Your task to perform on an android device: check data usage Image 0: 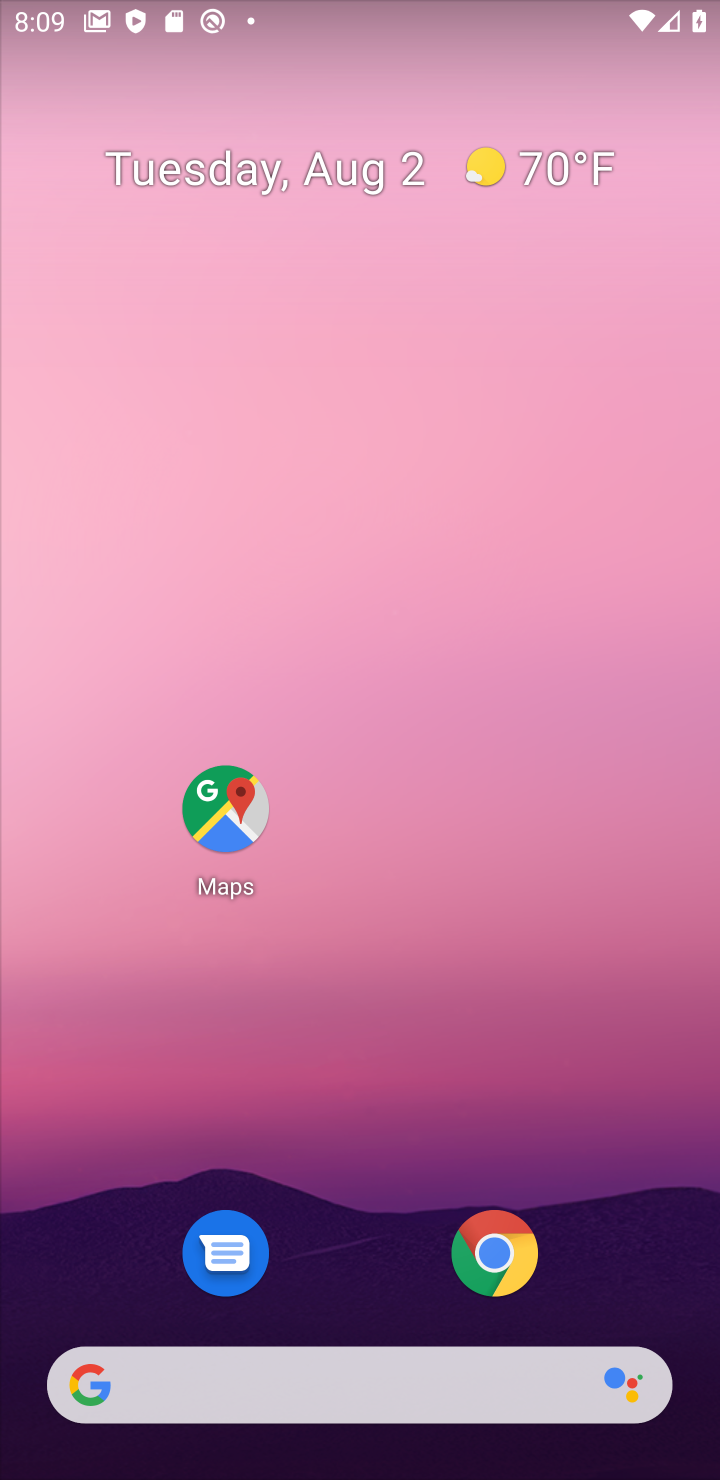
Step 0: drag from (414, 1380) to (448, 91)
Your task to perform on an android device: check data usage Image 1: 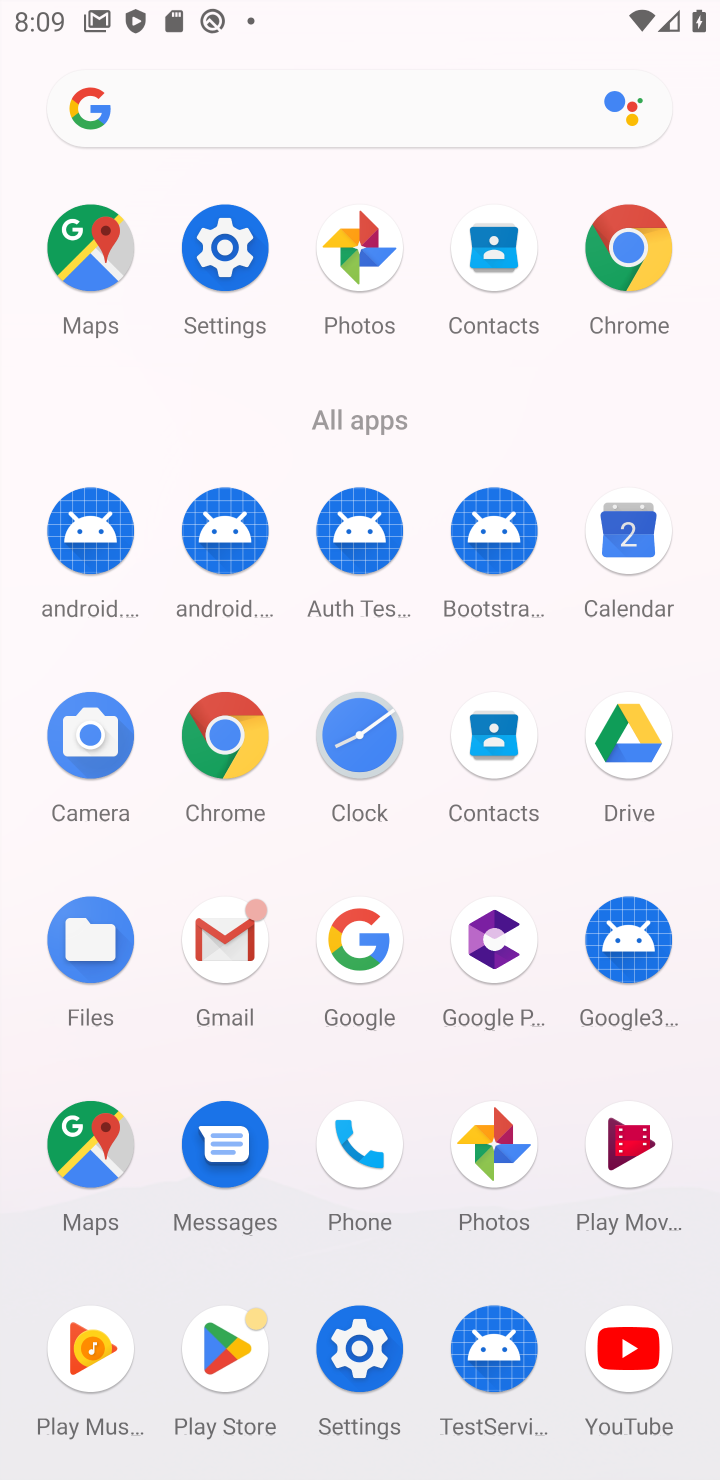
Step 1: click (233, 251)
Your task to perform on an android device: check data usage Image 2: 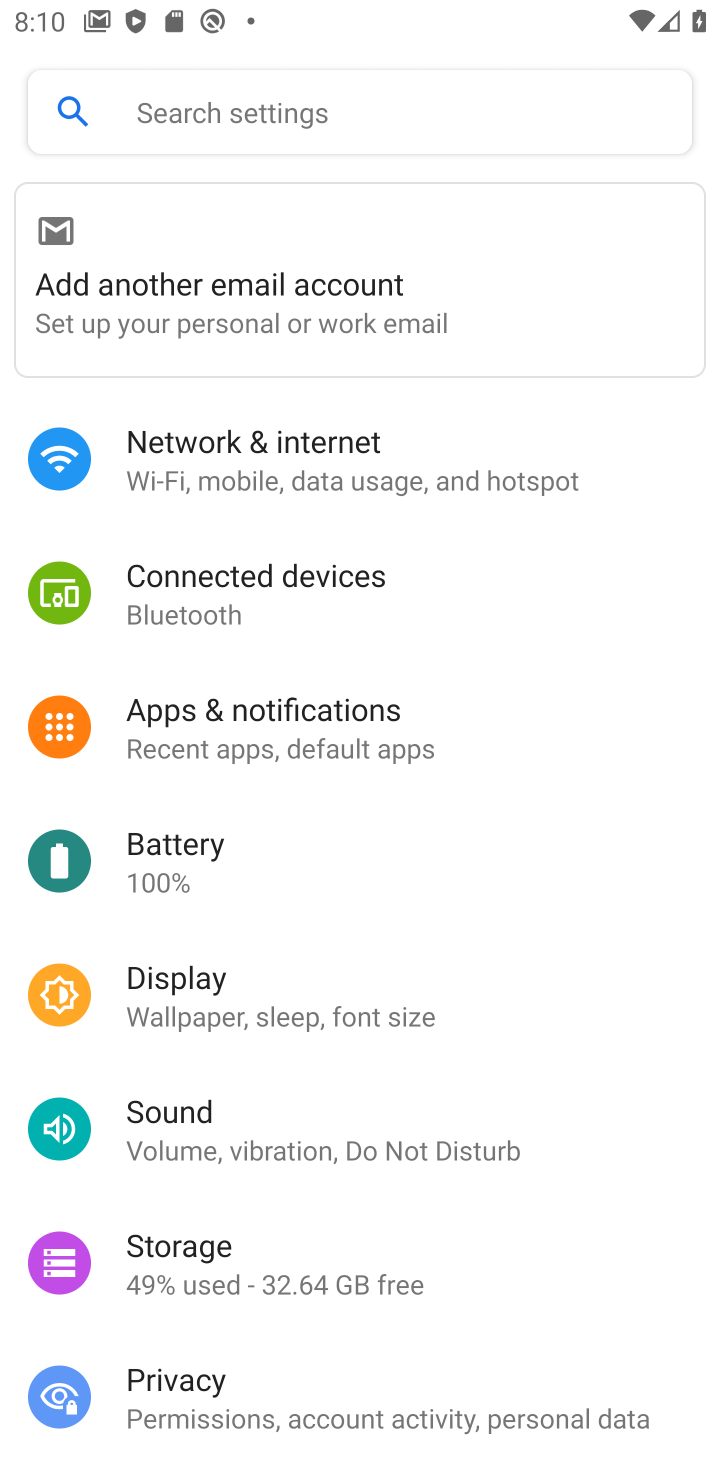
Step 2: click (303, 453)
Your task to perform on an android device: check data usage Image 3: 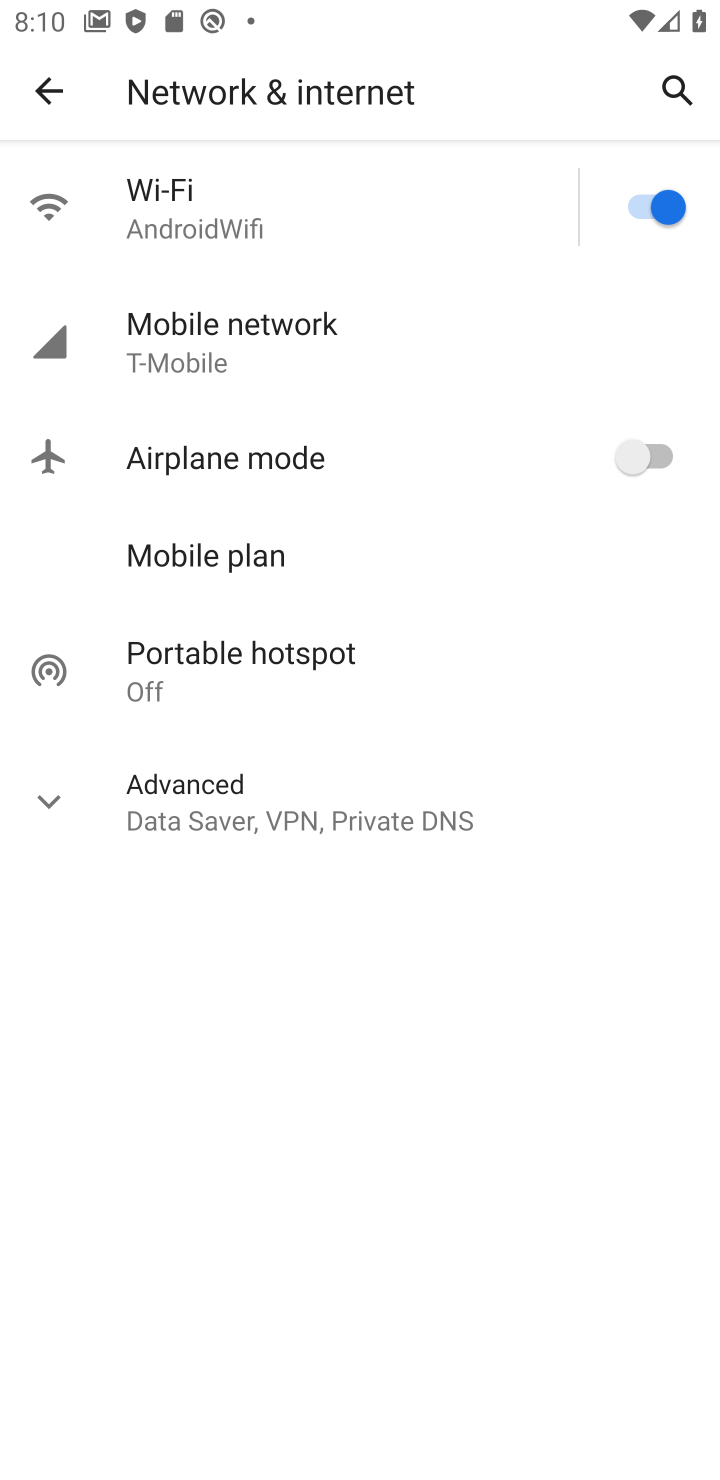
Step 3: click (218, 216)
Your task to perform on an android device: check data usage Image 4: 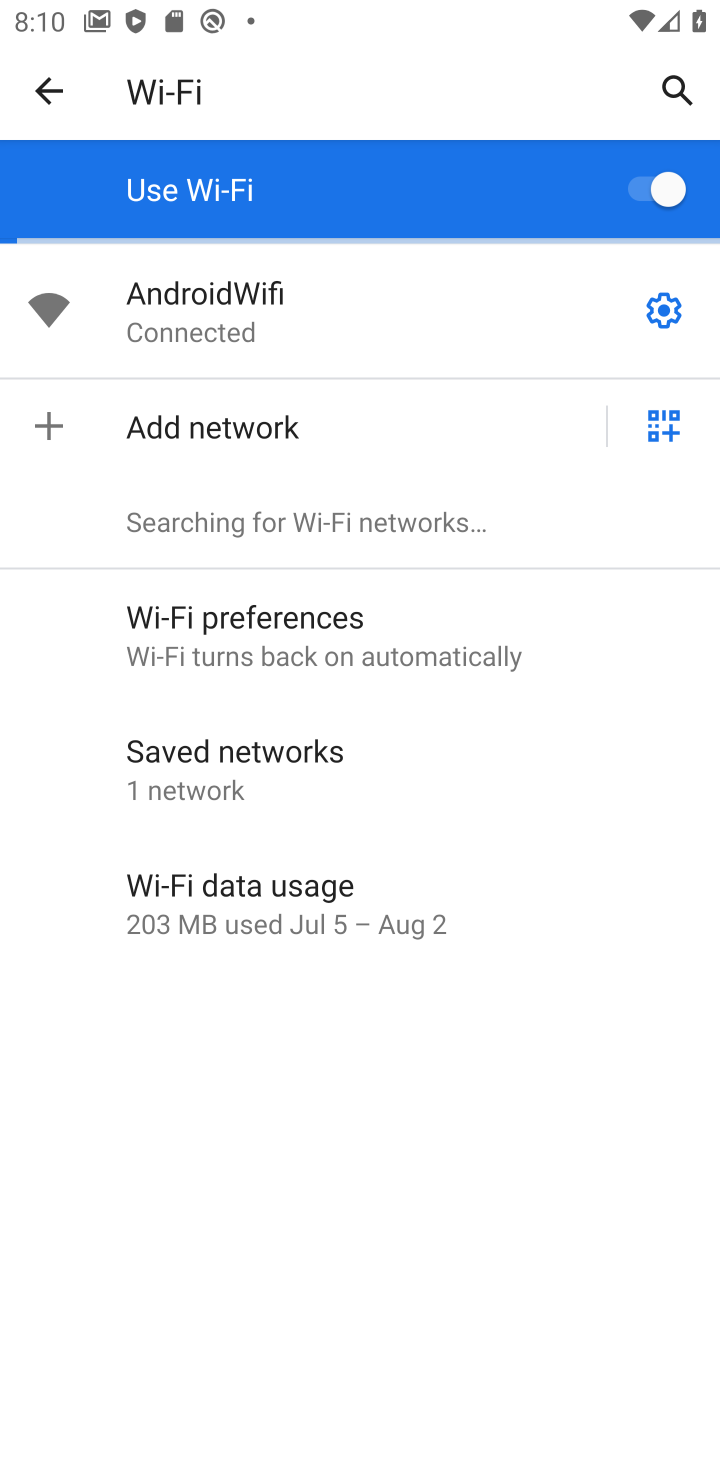
Step 4: click (288, 899)
Your task to perform on an android device: check data usage Image 5: 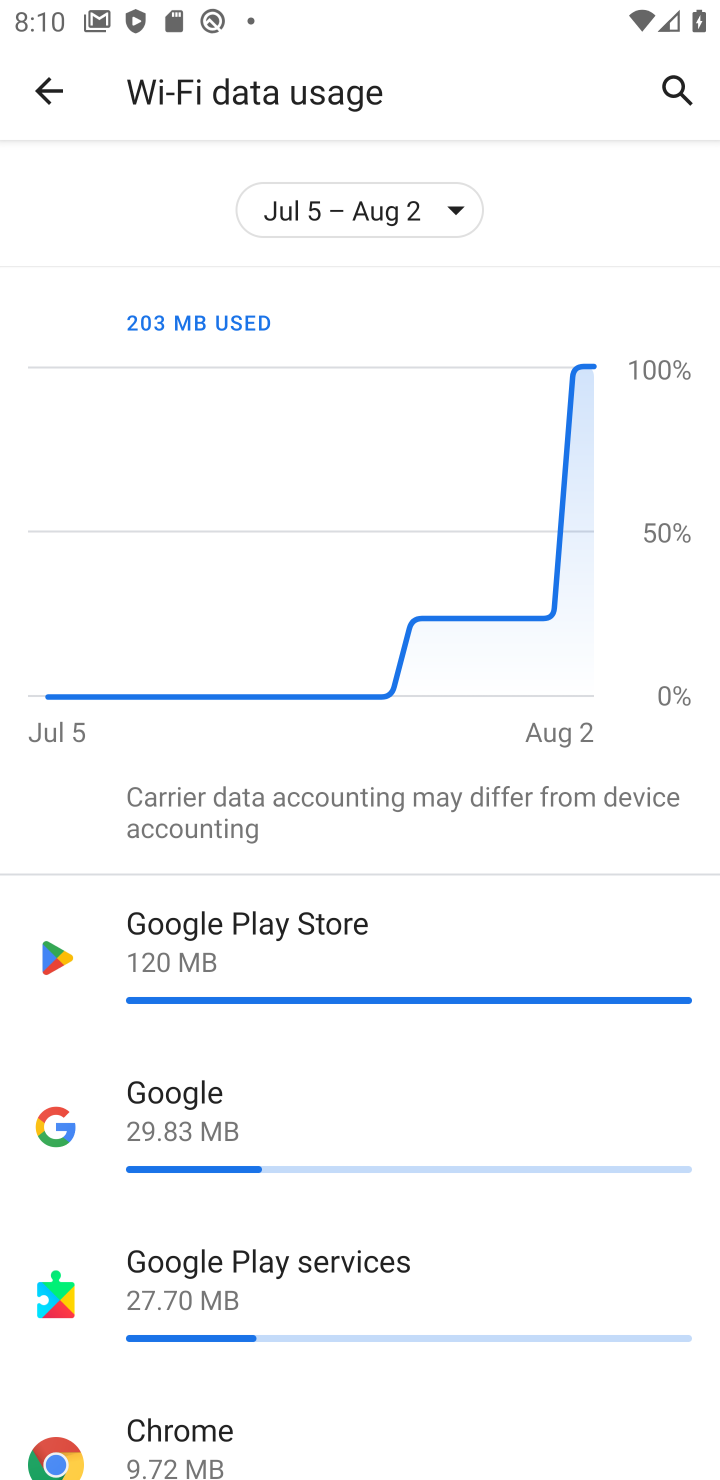
Step 5: task complete